Your task to perform on an android device: remove spam from my inbox in the gmail app Image 0: 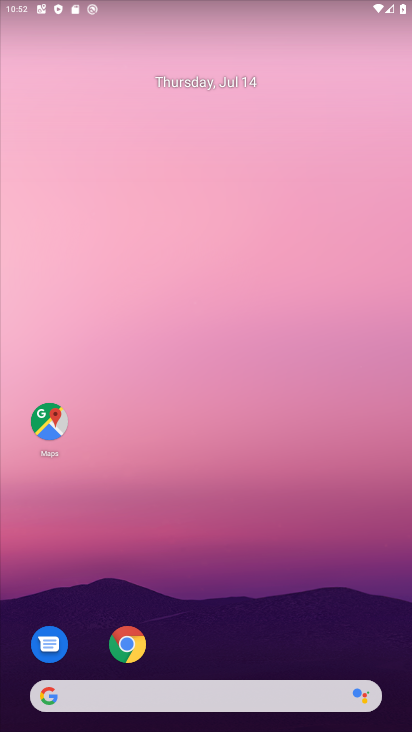
Step 0: drag from (187, 696) to (143, 205)
Your task to perform on an android device: remove spam from my inbox in the gmail app Image 1: 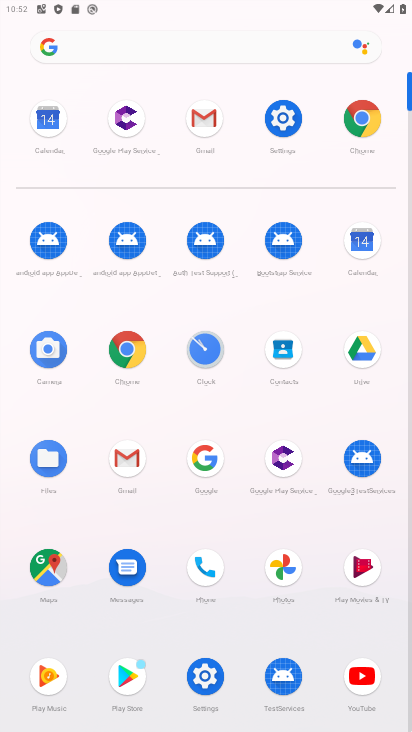
Step 1: click (128, 460)
Your task to perform on an android device: remove spam from my inbox in the gmail app Image 2: 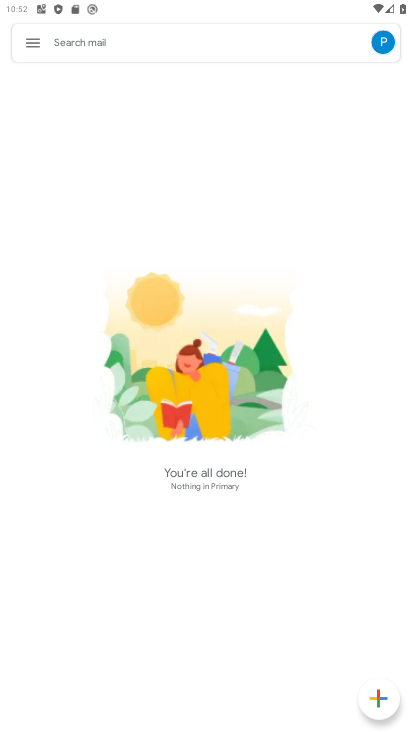
Step 2: click (37, 42)
Your task to perform on an android device: remove spam from my inbox in the gmail app Image 3: 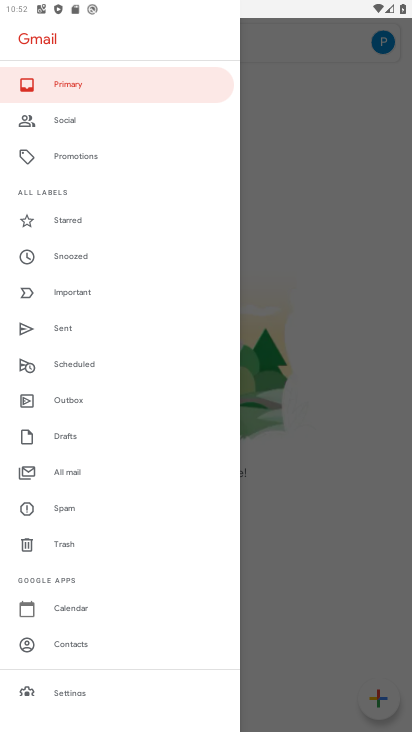
Step 3: task complete